Your task to perform on an android device: turn on improve location accuracy Image 0: 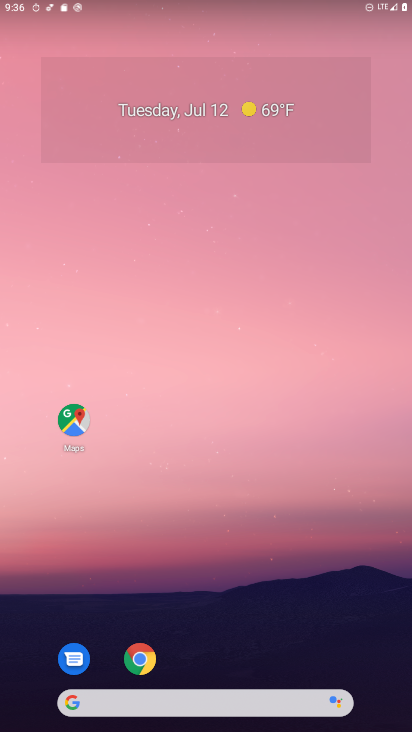
Step 0: drag from (206, 730) to (186, 220)
Your task to perform on an android device: turn on improve location accuracy Image 1: 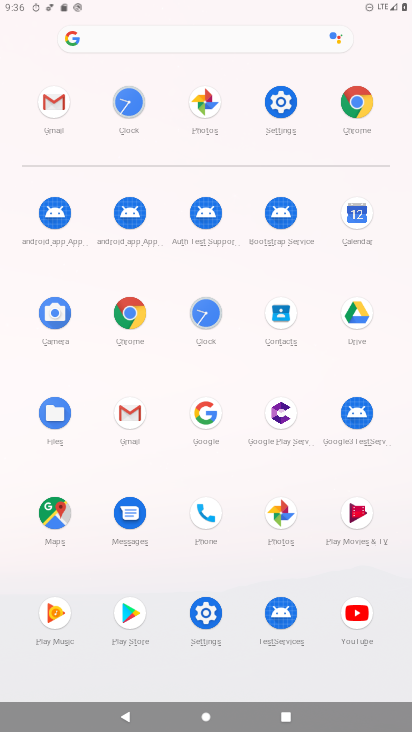
Step 1: click (266, 96)
Your task to perform on an android device: turn on improve location accuracy Image 2: 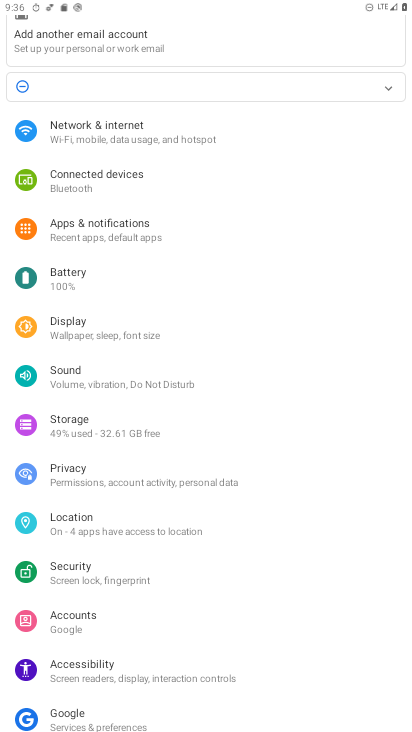
Step 2: click (77, 513)
Your task to perform on an android device: turn on improve location accuracy Image 3: 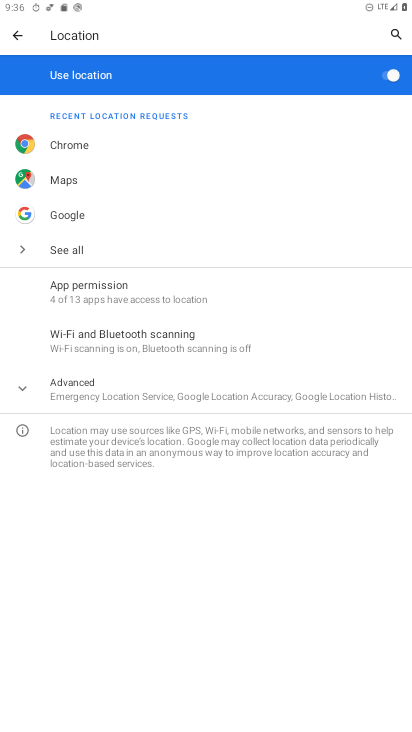
Step 3: click (86, 394)
Your task to perform on an android device: turn on improve location accuracy Image 4: 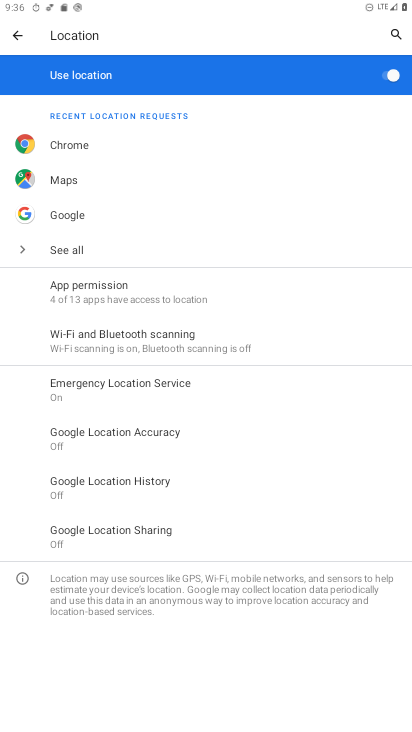
Step 4: click (130, 428)
Your task to perform on an android device: turn on improve location accuracy Image 5: 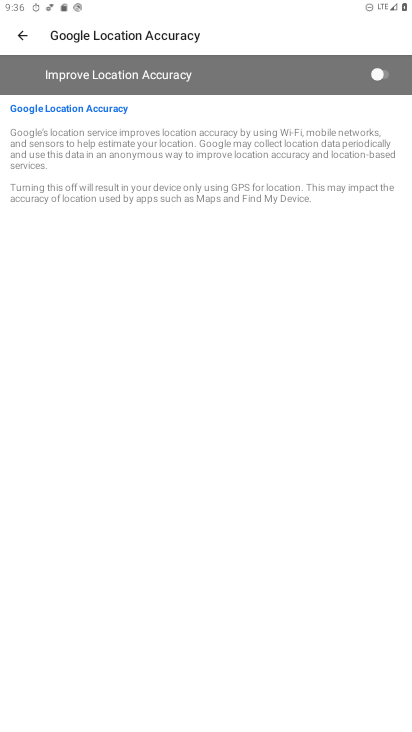
Step 5: click (384, 77)
Your task to perform on an android device: turn on improve location accuracy Image 6: 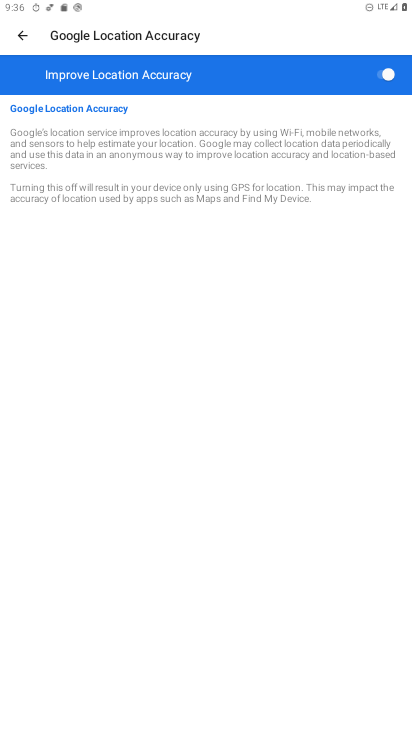
Step 6: task complete